Your task to perform on an android device: turn off improve location accuracy Image 0: 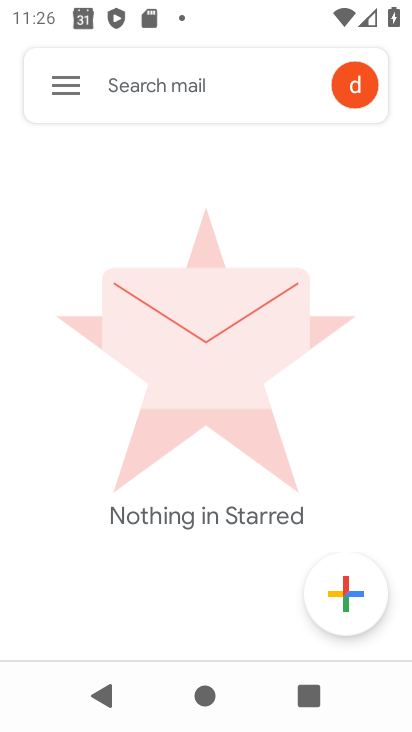
Step 0: press home button
Your task to perform on an android device: turn off improve location accuracy Image 1: 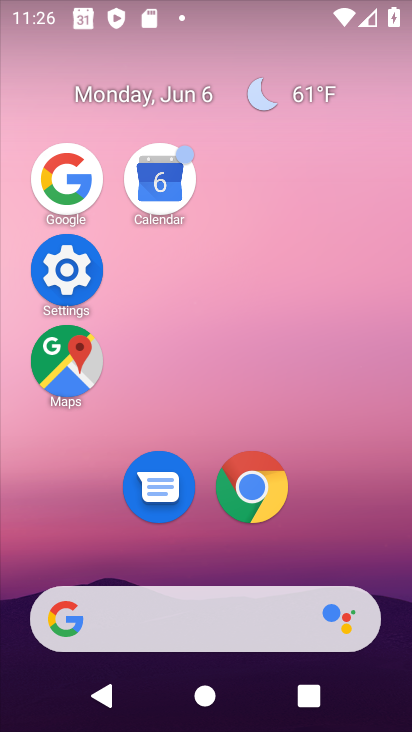
Step 1: click (72, 263)
Your task to perform on an android device: turn off improve location accuracy Image 2: 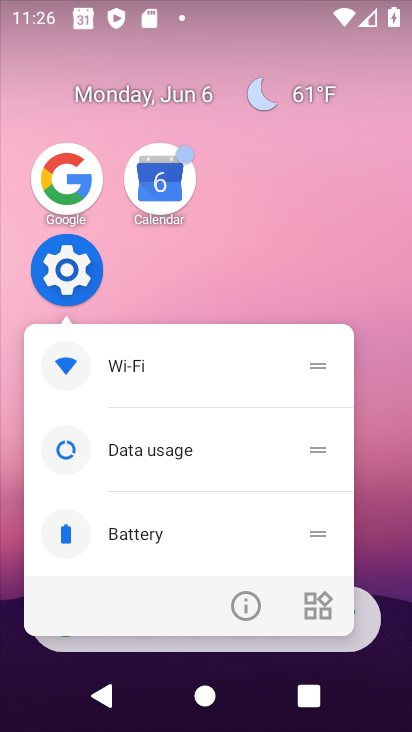
Step 2: click (75, 266)
Your task to perform on an android device: turn off improve location accuracy Image 3: 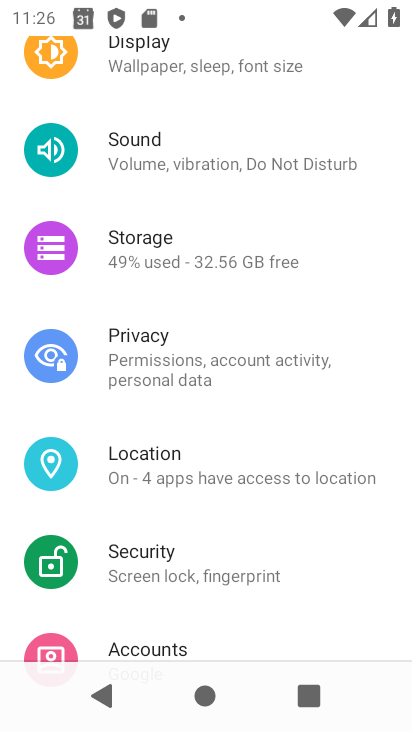
Step 3: drag from (242, 518) to (257, 155)
Your task to perform on an android device: turn off improve location accuracy Image 4: 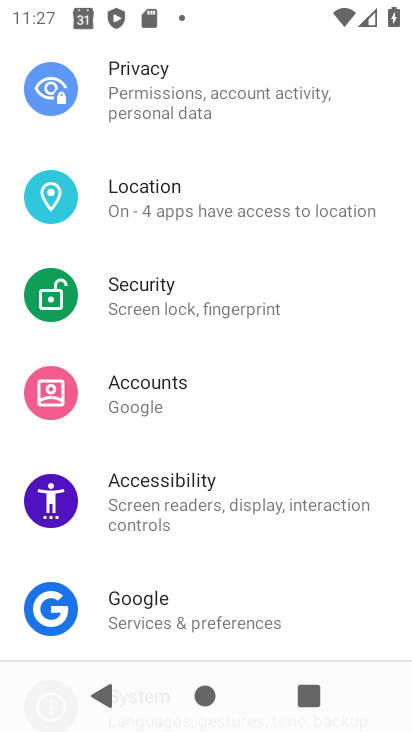
Step 4: click (203, 226)
Your task to perform on an android device: turn off improve location accuracy Image 5: 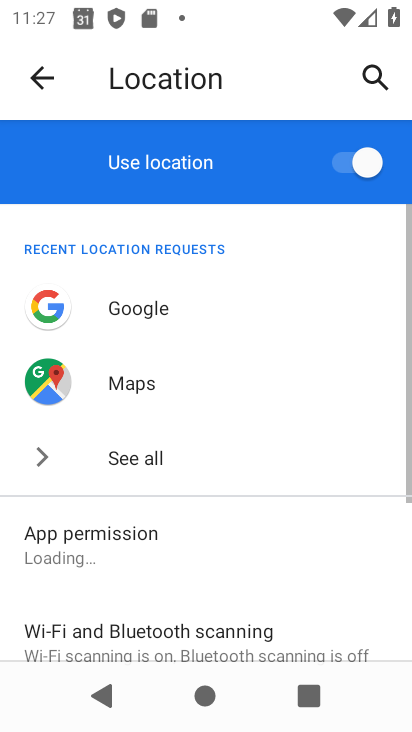
Step 5: drag from (195, 597) to (188, 148)
Your task to perform on an android device: turn off improve location accuracy Image 6: 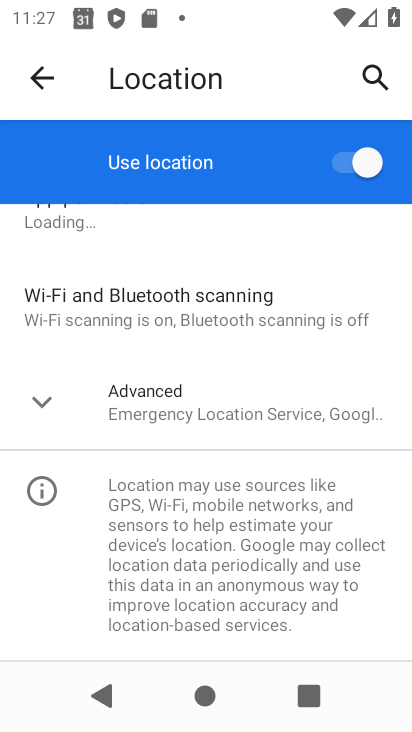
Step 6: click (219, 420)
Your task to perform on an android device: turn off improve location accuracy Image 7: 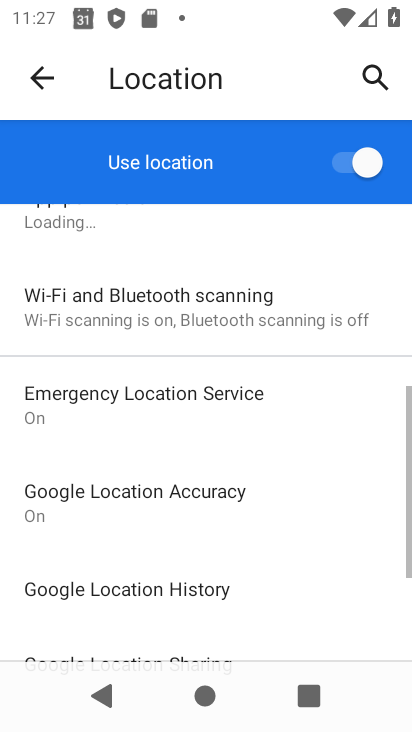
Step 7: drag from (241, 551) to (232, 261)
Your task to perform on an android device: turn off improve location accuracy Image 8: 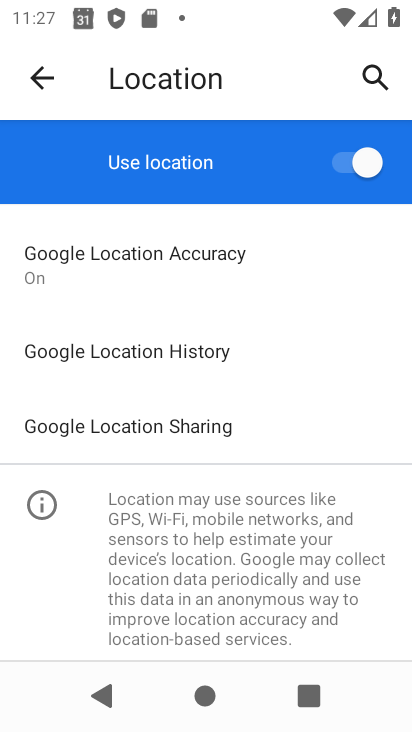
Step 8: click (243, 264)
Your task to perform on an android device: turn off improve location accuracy Image 9: 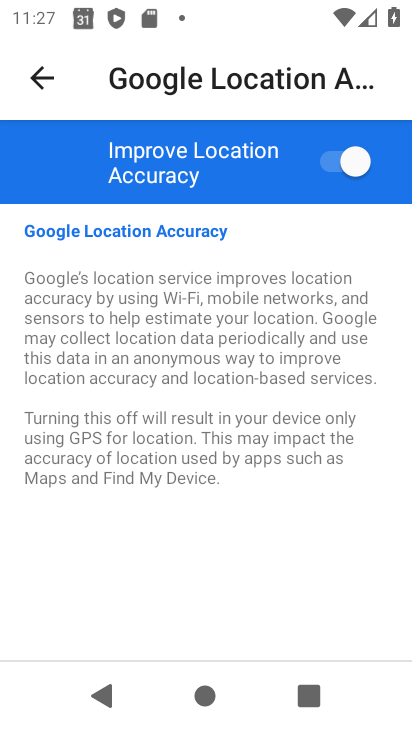
Step 9: click (363, 159)
Your task to perform on an android device: turn off improve location accuracy Image 10: 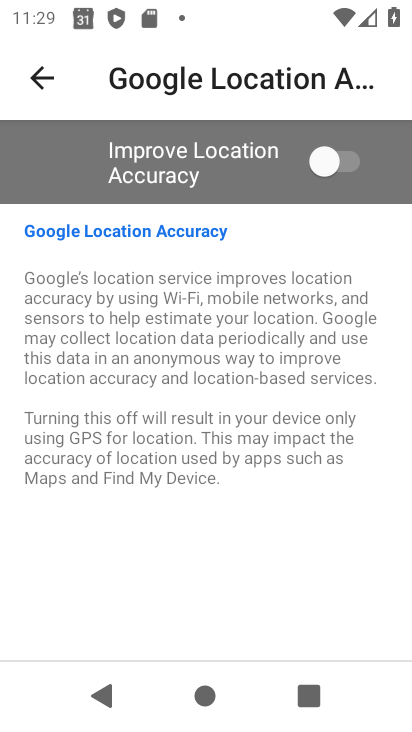
Step 10: task complete